Your task to perform on an android device: Is it going to rain tomorrow? Image 0: 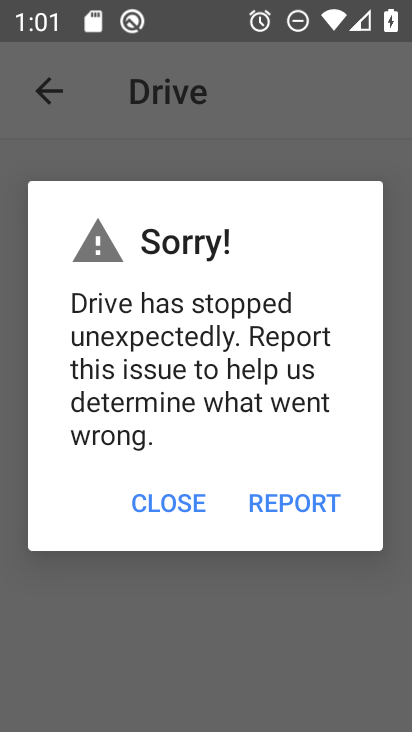
Step 0: press home button
Your task to perform on an android device: Is it going to rain tomorrow? Image 1: 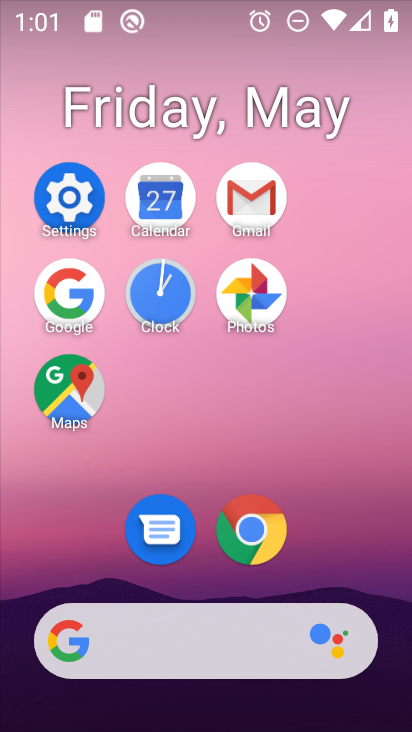
Step 1: click (60, 284)
Your task to perform on an android device: Is it going to rain tomorrow? Image 2: 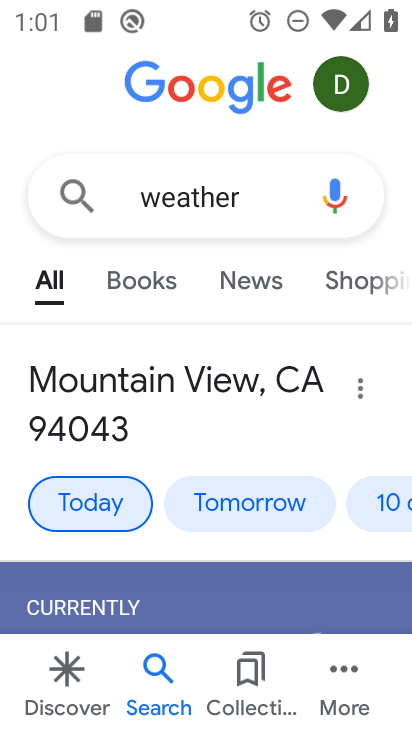
Step 2: click (268, 204)
Your task to perform on an android device: Is it going to rain tomorrow? Image 3: 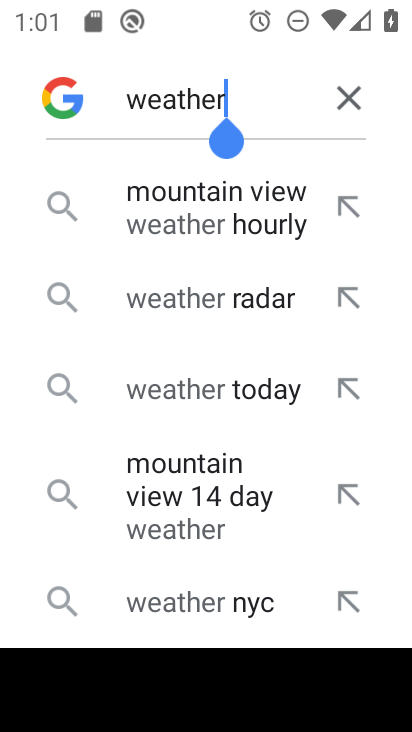
Step 3: click (348, 91)
Your task to perform on an android device: Is it going to rain tomorrow? Image 4: 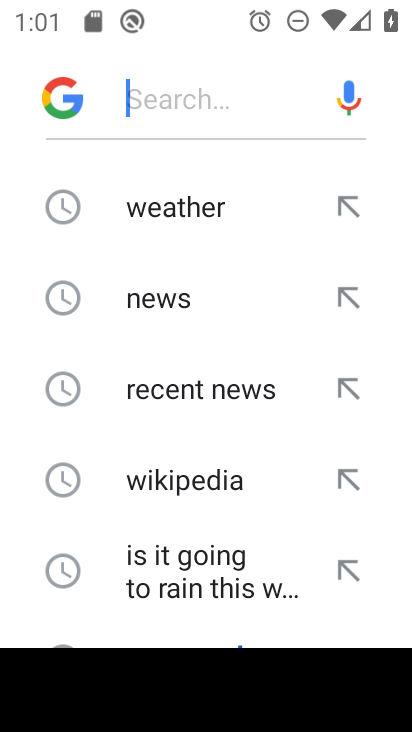
Step 4: click (237, 197)
Your task to perform on an android device: Is it going to rain tomorrow? Image 5: 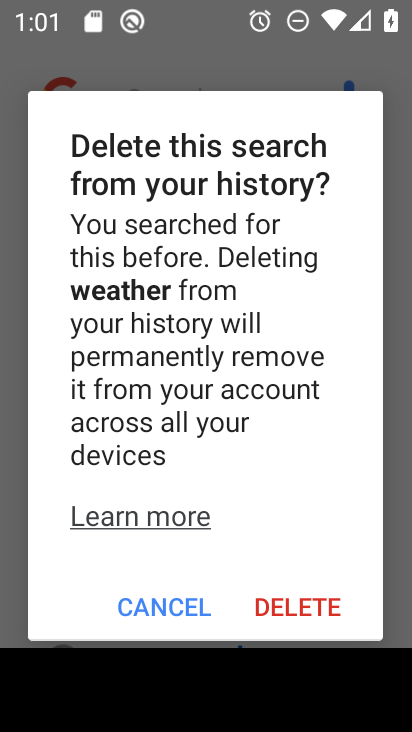
Step 5: click (193, 606)
Your task to perform on an android device: Is it going to rain tomorrow? Image 6: 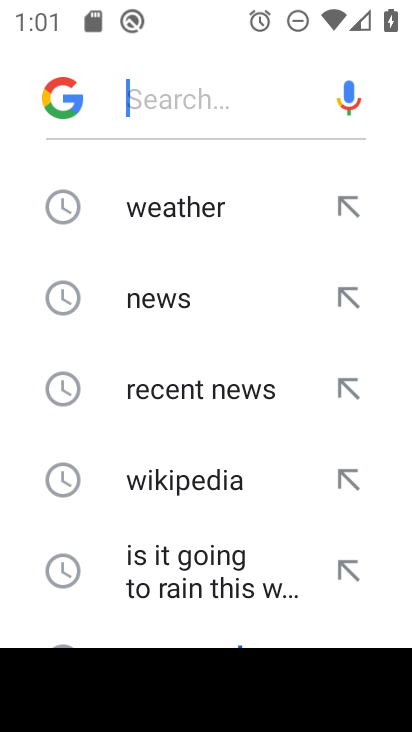
Step 6: click (202, 205)
Your task to perform on an android device: Is it going to rain tomorrow? Image 7: 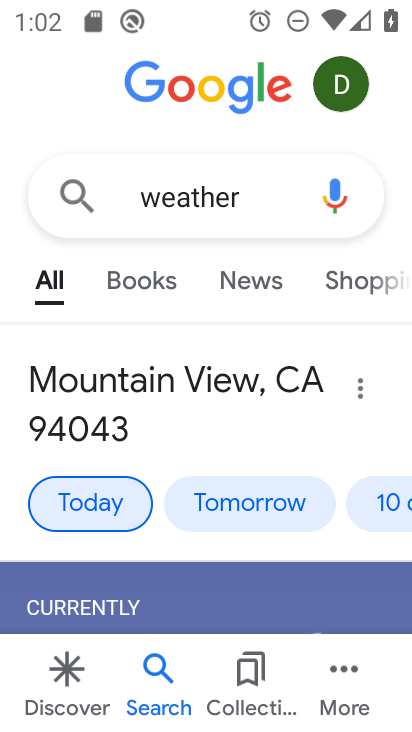
Step 7: click (221, 497)
Your task to perform on an android device: Is it going to rain tomorrow? Image 8: 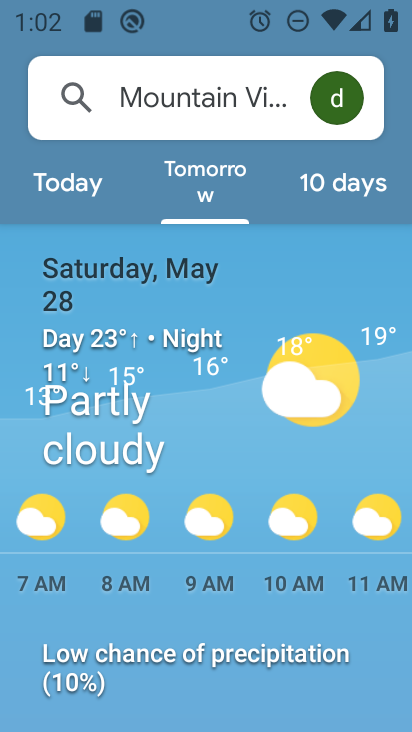
Step 8: task complete